Your task to perform on an android device: refresh tabs in the chrome app Image 0: 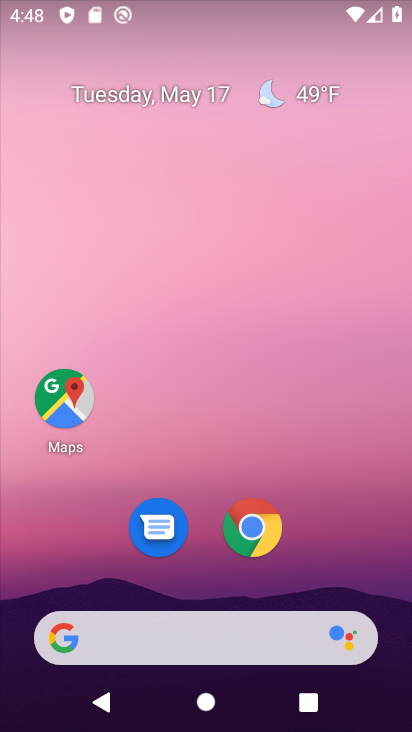
Step 0: drag from (346, 532) to (232, 0)
Your task to perform on an android device: refresh tabs in the chrome app Image 1: 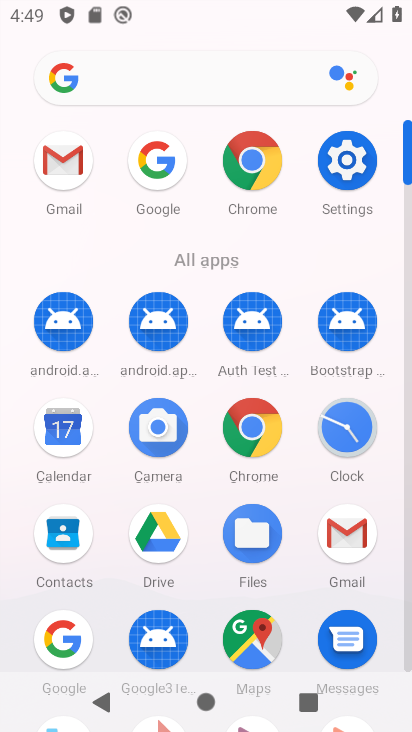
Step 1: drag from (13, 563) to (4, 186)
Your task to perform on an android device: refresh tabs in the chrome app Image 2: 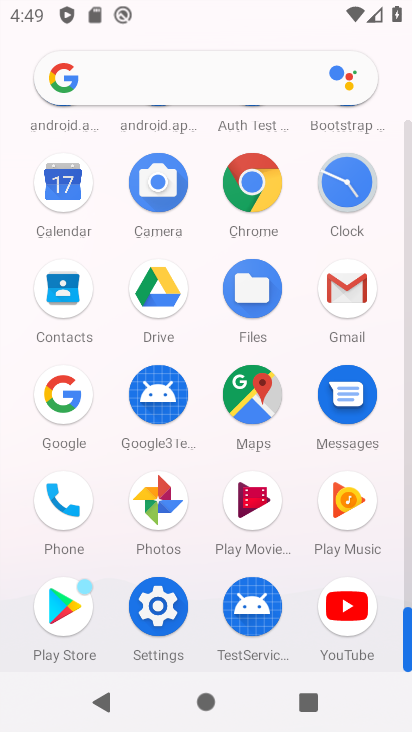
Step 2: click (246, 178)
Your task to perform on an android device: refresh tabs in the chrome app Image 3: 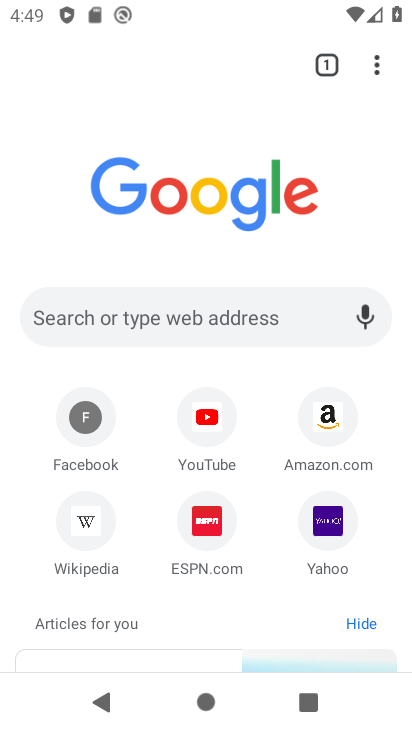
Step 3: click (371, 60)
Your task to perform on an android device: refresh tabs in the chrome app Image 4: 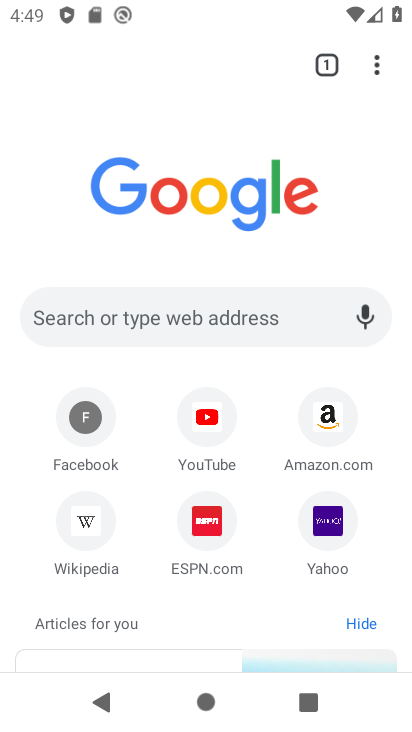
Step 4: click (374, 65)
Your task to perform on an android device: refresh tabs in the chrome app Image 5: 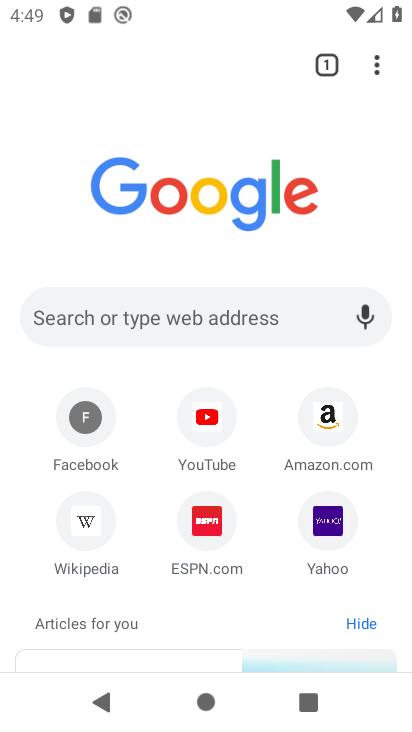
Step 5: task complete